Your task to perform on an android device: Open display settings Image 0: 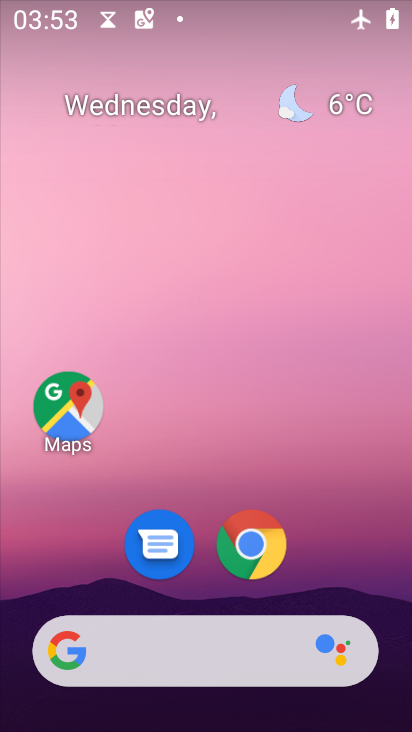
Step 0: drag from (329, 592) to (308, 61)
Your task to perform on an android device: Open display settings Image 1: 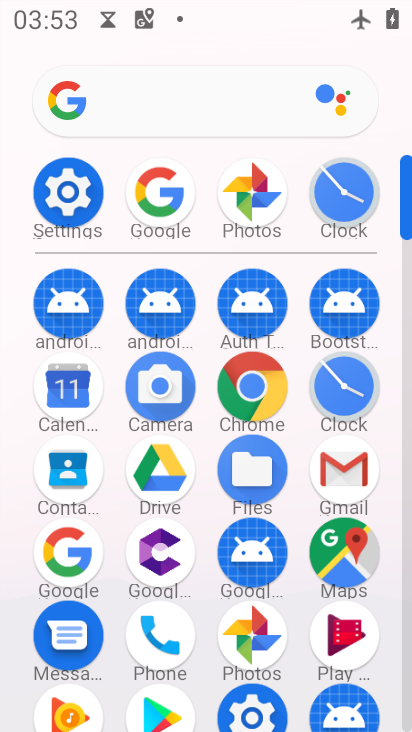
Step 1: click (72, 198)
Your task to perform on an android device: Open display settings Image 2: 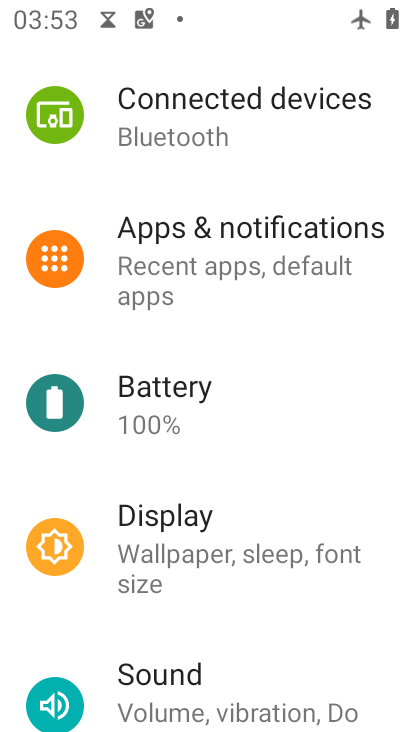
Step 2: click (180, 545)
Your task to perform on an android device: Open display settings Image 3: 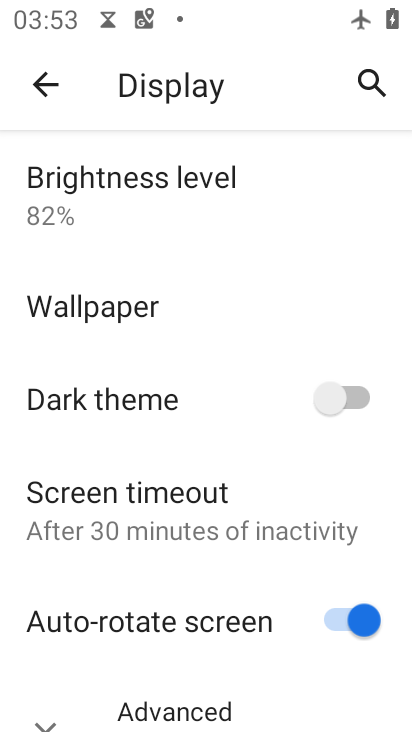
Step 3: task complete